Your task to perform on an android device: toggle notification dots Image 0: 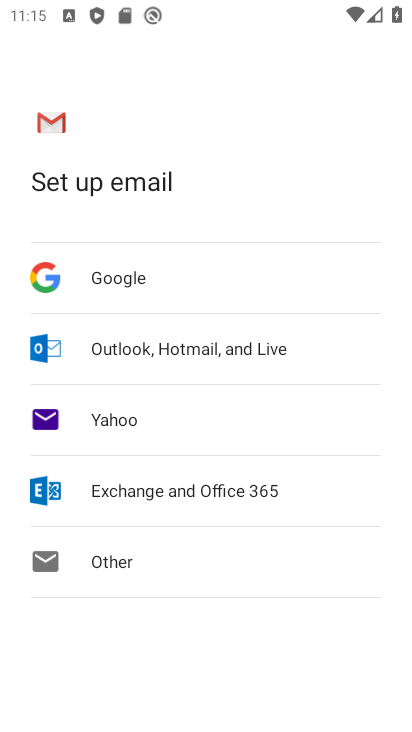
Step 0: press home button
Your task to perform on an android device: toggle notification dots Image 1: 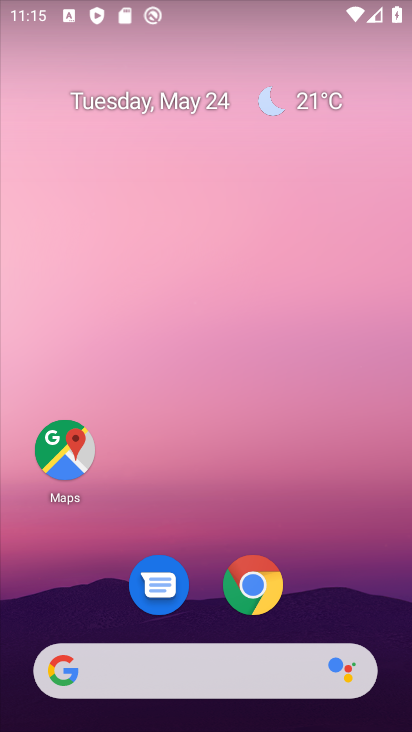
Step 1: drag from (186, 490) to (261, 44)
Your task to perform on an android device: toggle notification dots Image 2: 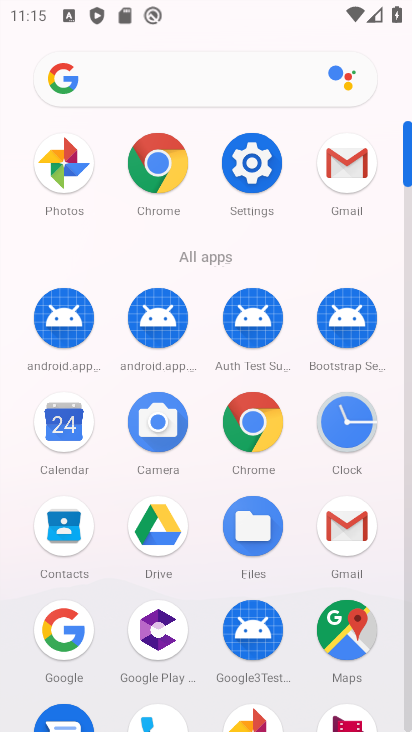
Step 2: click (262, 159)
Your task to perform on an android device: toggle notification dots Image 3: 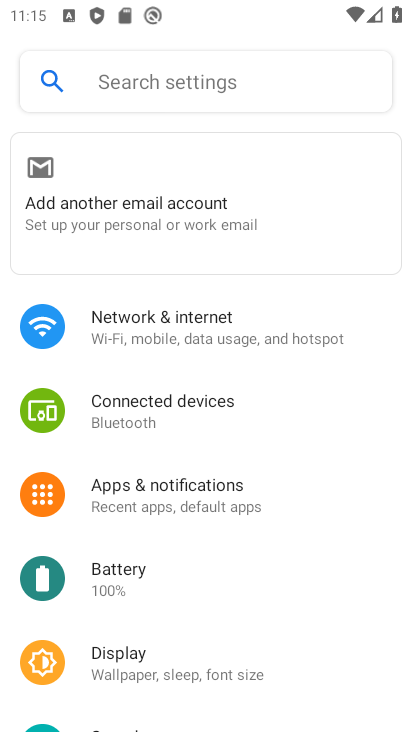
Step 3: click (204, 492)
Your task to perform on an android device: toggle notification dots Image 4: 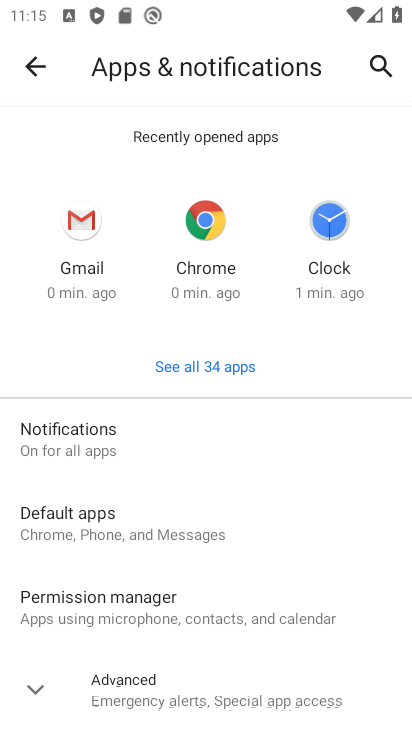
Step 4: click (187, 445)
Your task to perform on an android device: toggle notification dots Image 5: 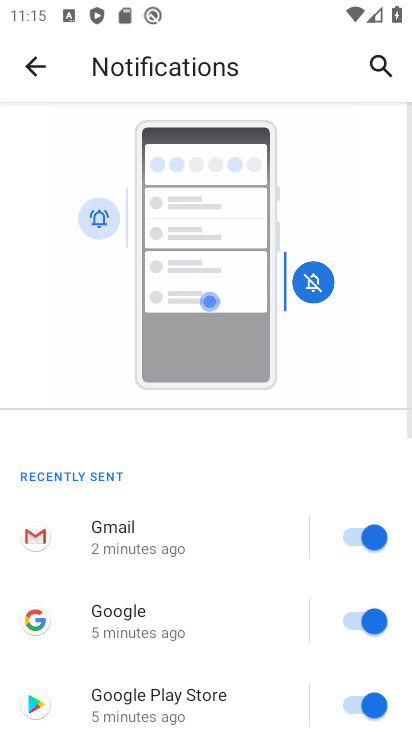
Step 5: drag from (187, 599) to (242, 22)
Your task to perform on an android device: toggle notification dots Image 6: 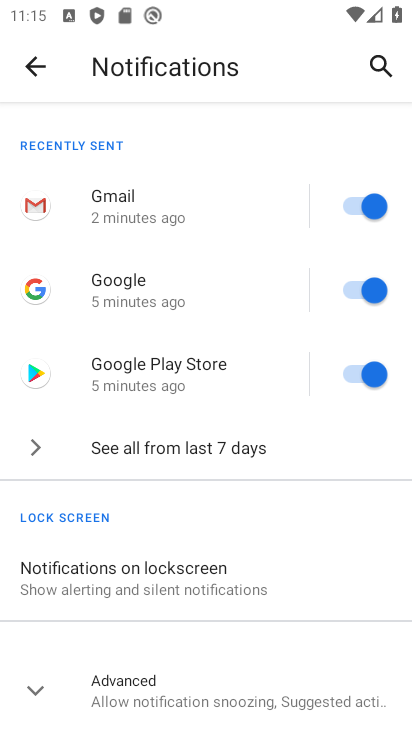
Step 6: click (27, 690)
Your task to perform on an android device: toggle notification dots Image 7: 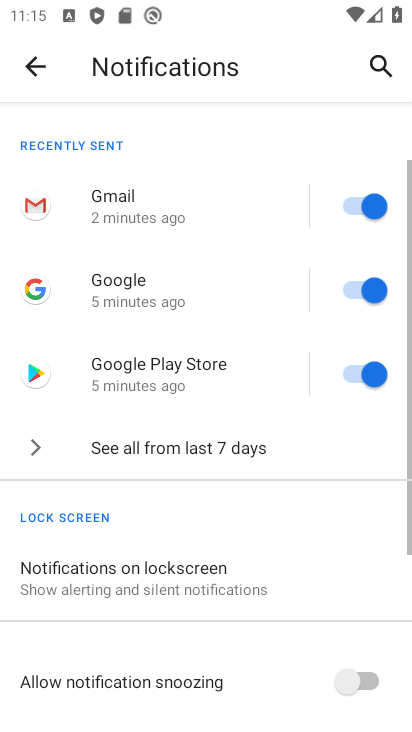
Step 7: drag from (175, 579) to (245, 166)
Your task to perform on an android device: toggle notification dots Image 8: 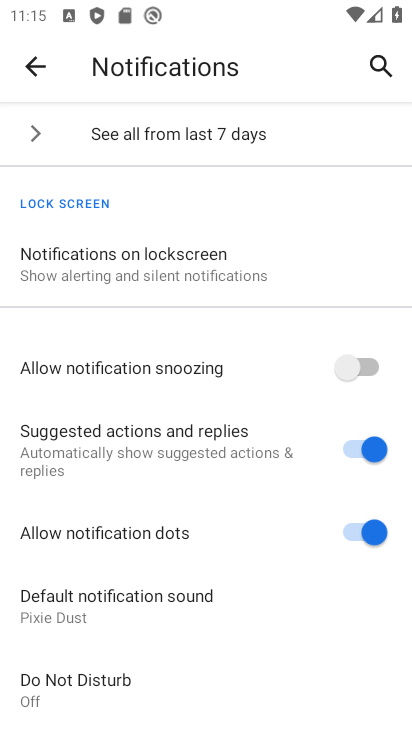
Step 8: click (367, 525)
Your task to perform on an android device: toggle notification dots Image 9: 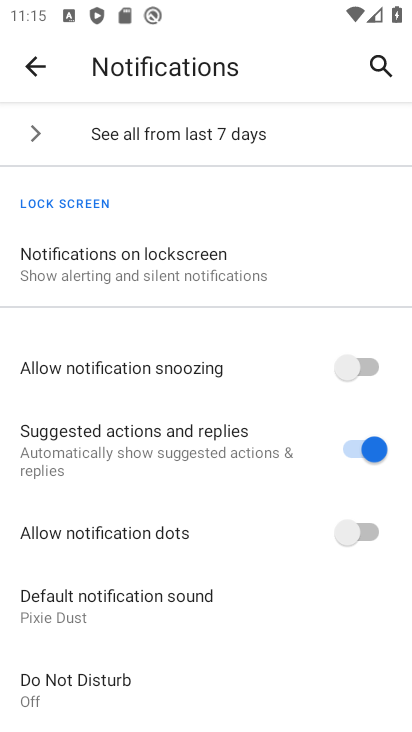
Step 9: task complete